Your task to perform on an android device: Go to accessibility settings Image 0: 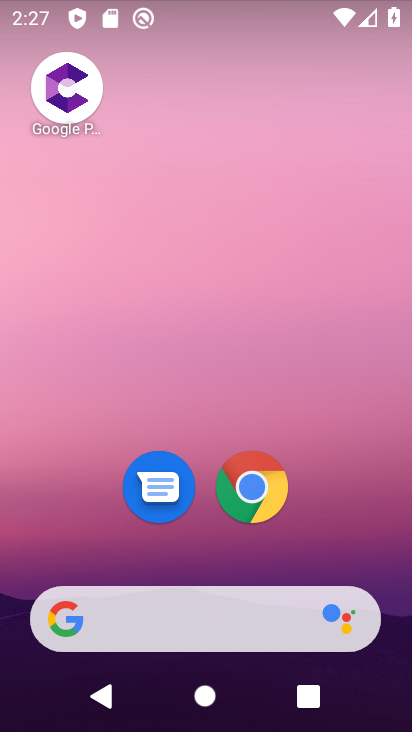
Step 0: drag from (96, 565) to (147, 8)
Your task to perform on an android device: Go to accessibility settings Image 1: 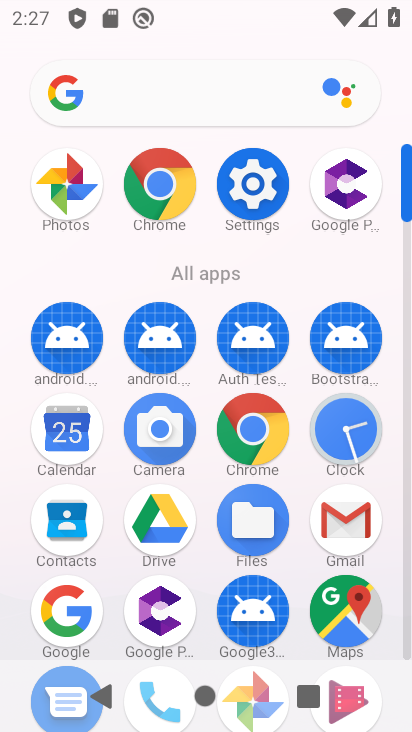
Step 1: click (259, 171)
Your task to perform on an android device: Go to accessibility settings Image 2: 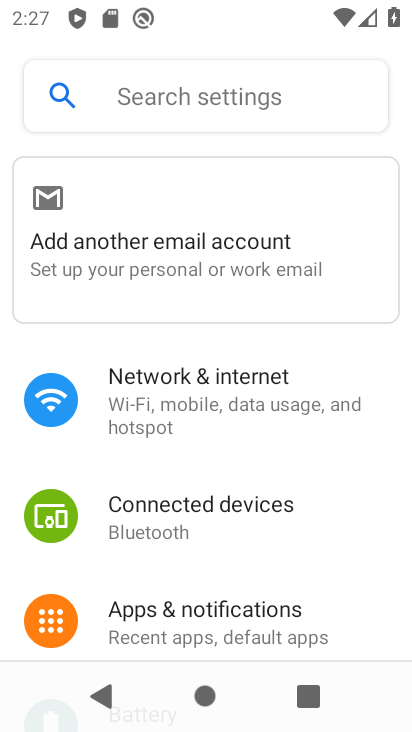
Step 2: drag from (175, 603) to (211, 12)
Your task to perform on an android device: Go to accessibility settings Image 3: 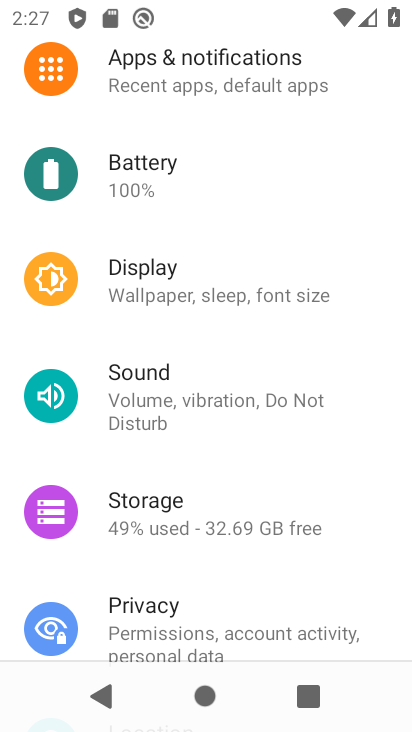
Step 3: drag from (216, 550) to (255, 20)
Your task to perform on an android device: Go to accessibility settings Image 4: 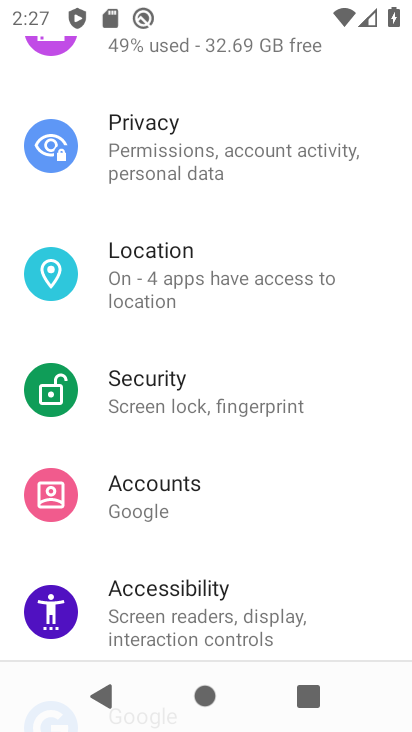
Step 4: click (186, 597)
Your task to perform on an android device: Go to accessibility settings Image 5: 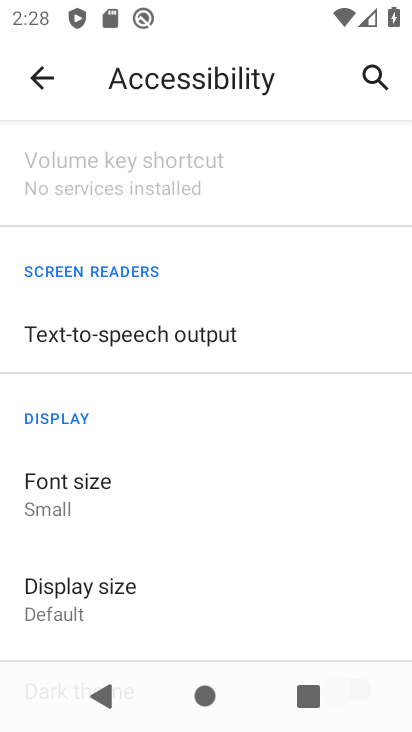
Step 5: task complete